Your task to perform on an android device: Is it going to rain today? Image 0: 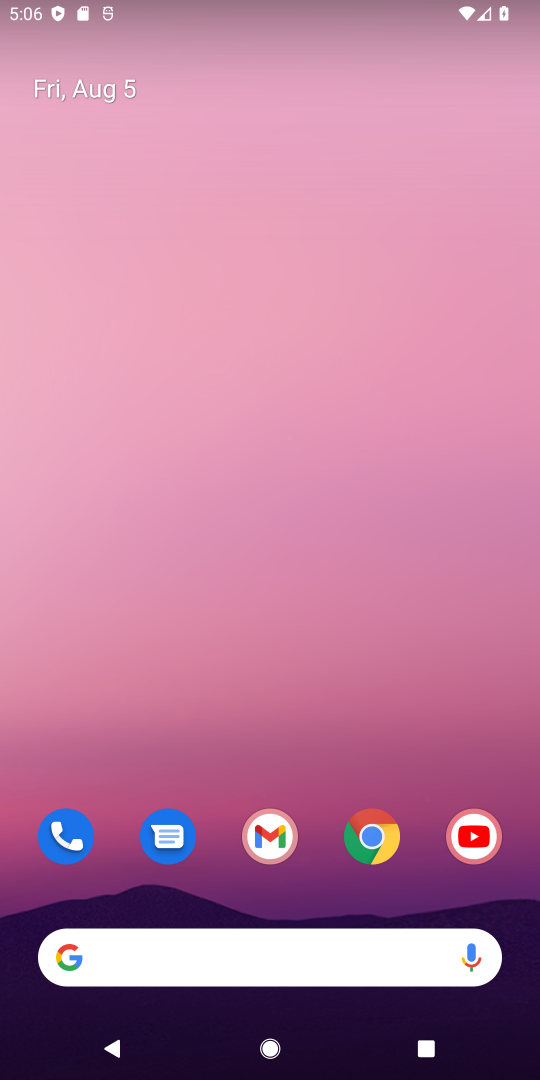
Step 0: click (252, 944)
Your task to perform on an android device: Is it going to rain today? Image 1: 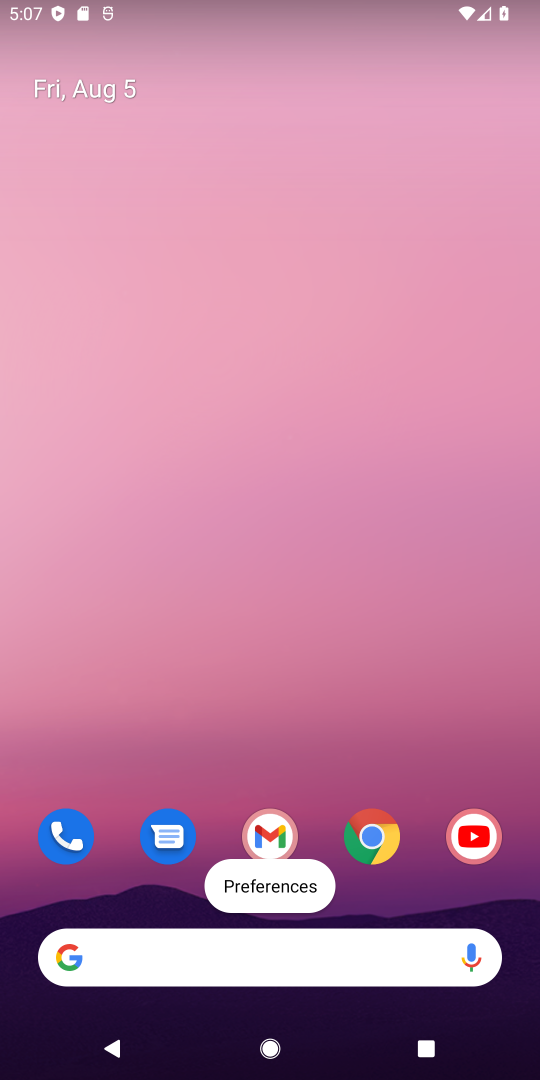
Step 1: click (308, 975)
Your task to perform on an android device: Is it going to rain today? Image 2: 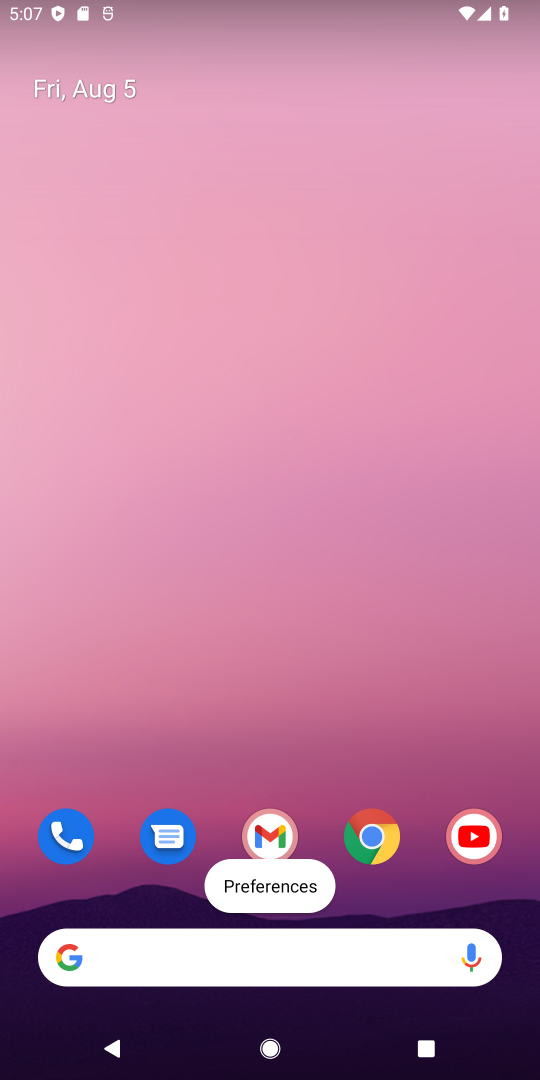
Step 2: click (241, 952)
Your task to perform on an android device: Is it going to rain today? Image 3: 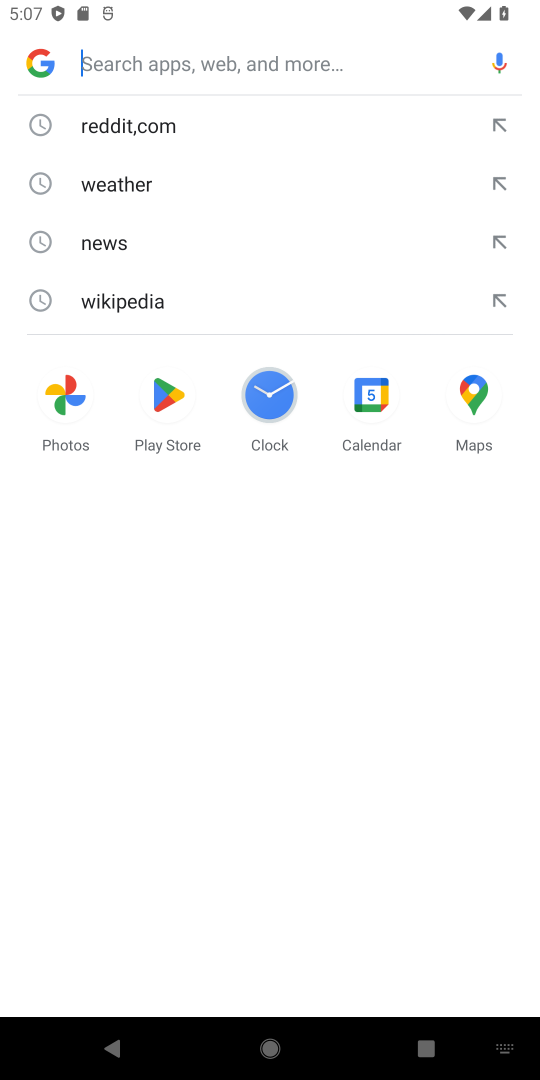
Step 3: click (158, 188)
Your task to perform on an android device: Is it going to rain today? Image 4: 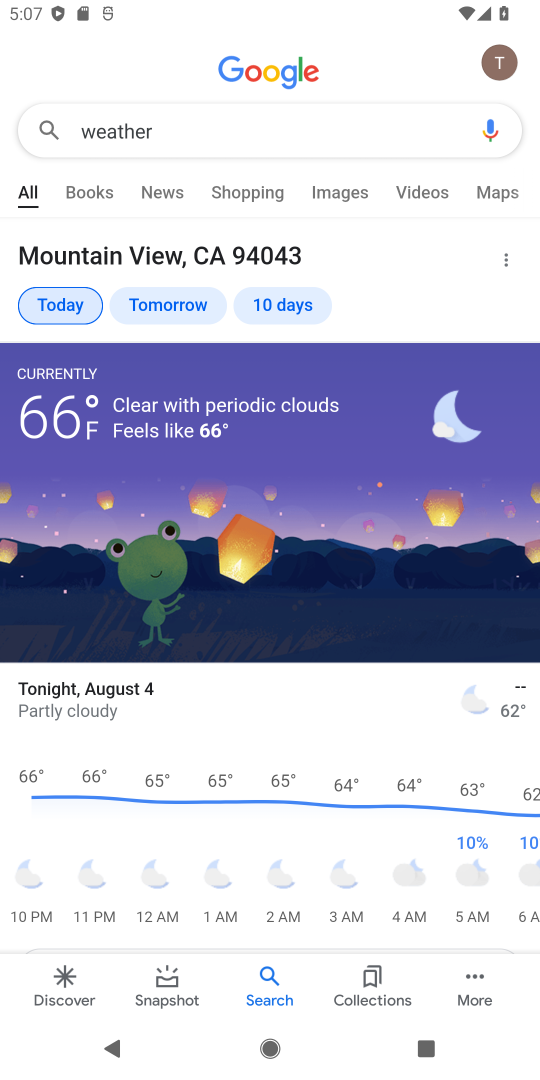
Step 4: task complete